Your task to perform on an android device: check data usage Image 0: 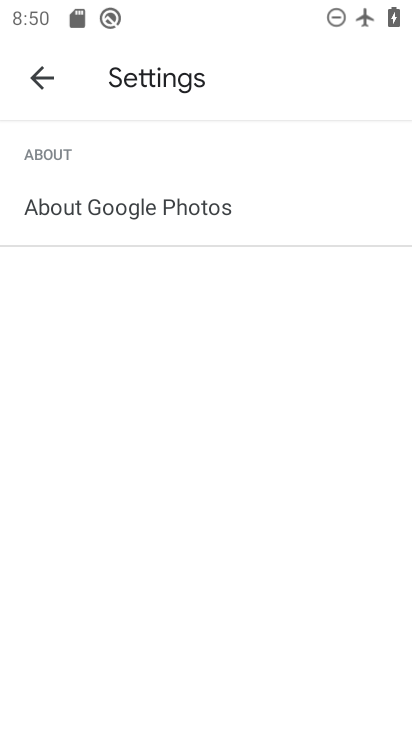
Step 0: click (31, 79)
Your task to perform on an android device: check data usage Image 1: 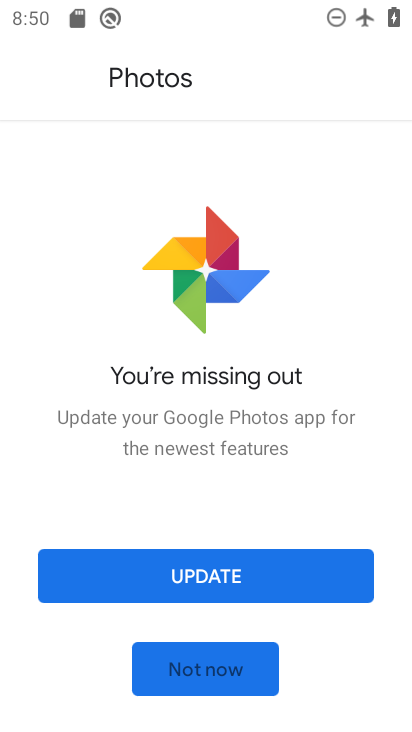
Step 1: press back button
Your task to perform on an android device: check data usage Image 2: 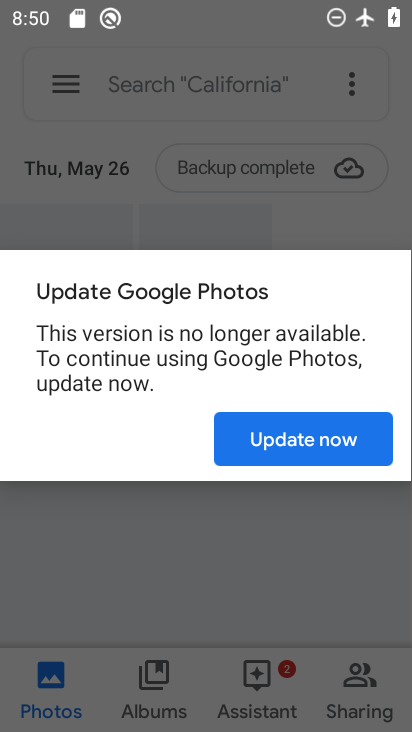
Step 2: press home button
Your task to perform on an android device: check data usage Image 3: 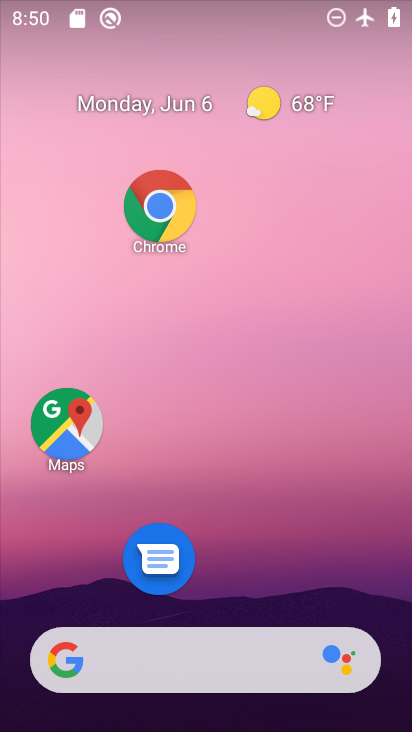
Step 3: drag from (268, 700) to (136, 139)
Your task to perform on an android device: check data usage Image 4: 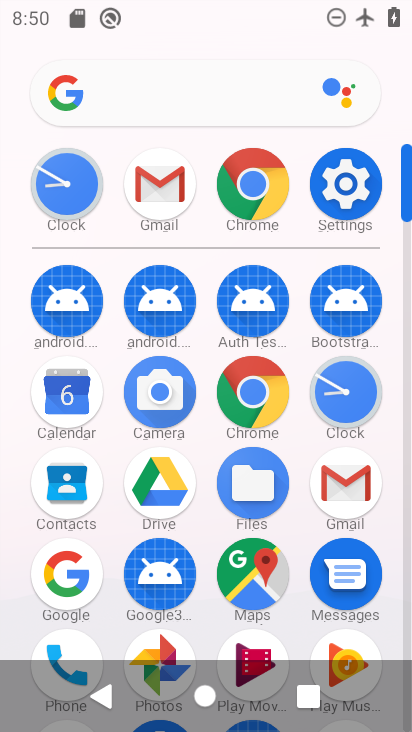
Step 4: click (342, 177)
Your task to perform on an android device: check data usage Image 5: 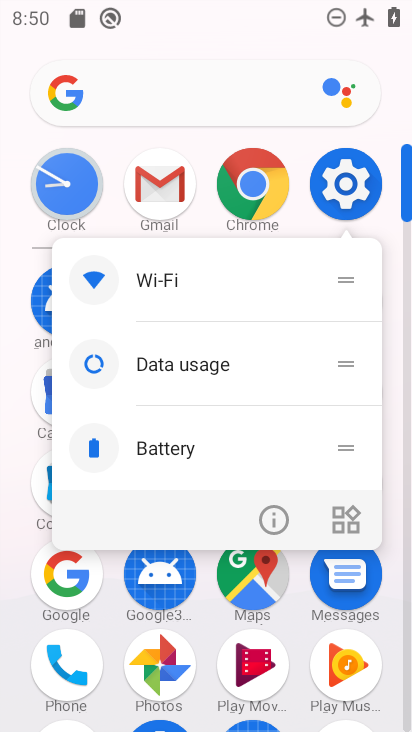
Step 5: click (206, 363)
Your task to perform on an android device: check data usage Image 6: 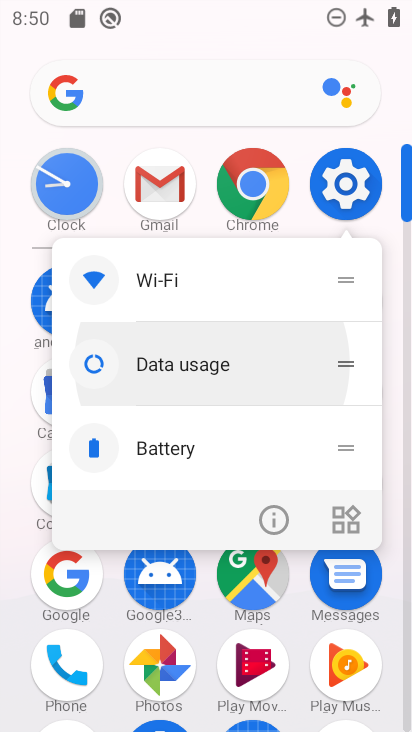
Step 6: click (205, 363)
Your task to perform on an android device: check data usage Image 7: 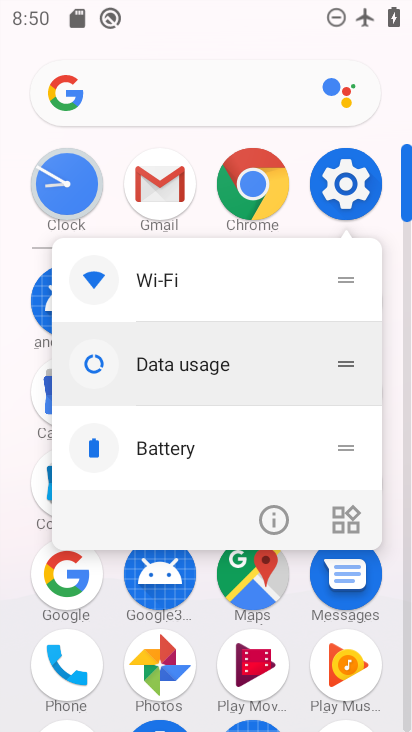
Step 7: click (203, 362)
Your task to perform on an android device: check data usage Image 8: 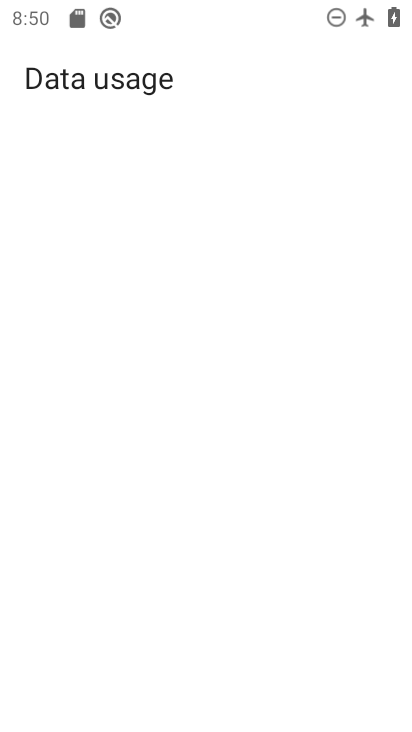
Step 8: click (203, 362)
Your task to perform on an android device: check data usage Image 9: 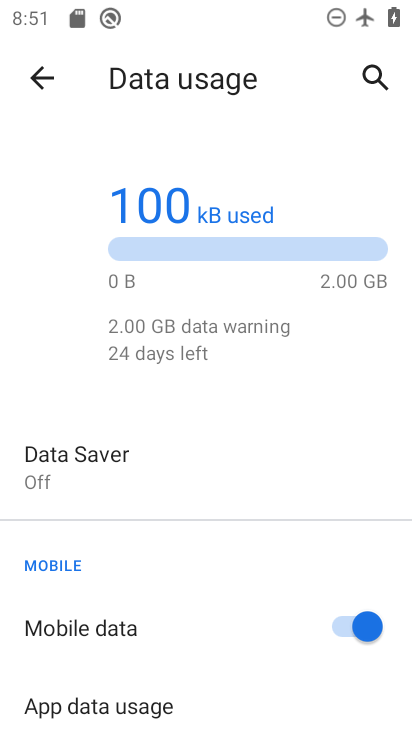
Step 9: task complete